Your task to perform on an android device: Toggle the flashlight Image 0: 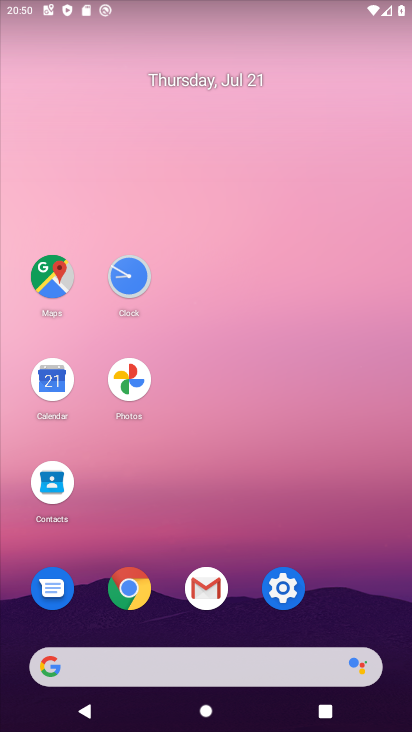
Step 0: click (283, 587)
Your task to perform on an android device: Toggle the flashlight Image 1: 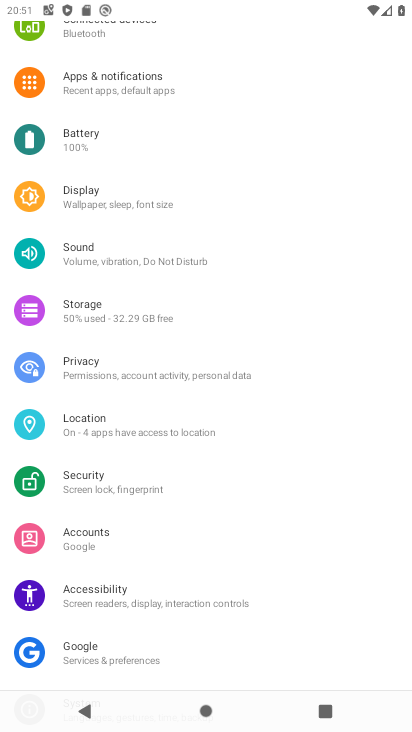
Step 1: click (91, 359)
Your task to perform on an android device: Toggle the flashlight Image 2: 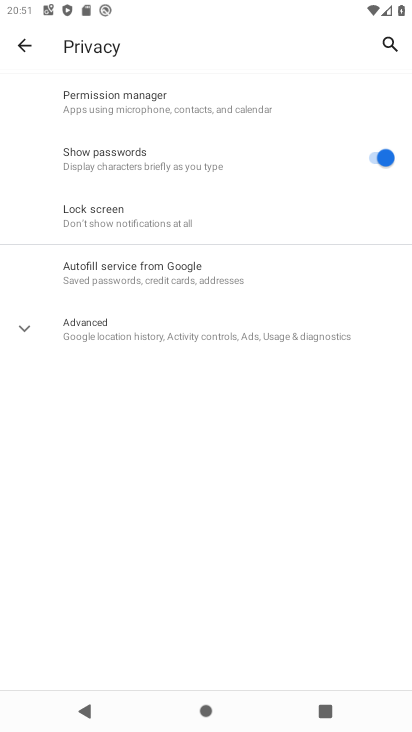
Step 2: task complete